Your task to perform on an android device: Open settings on Google Maps Image 0: 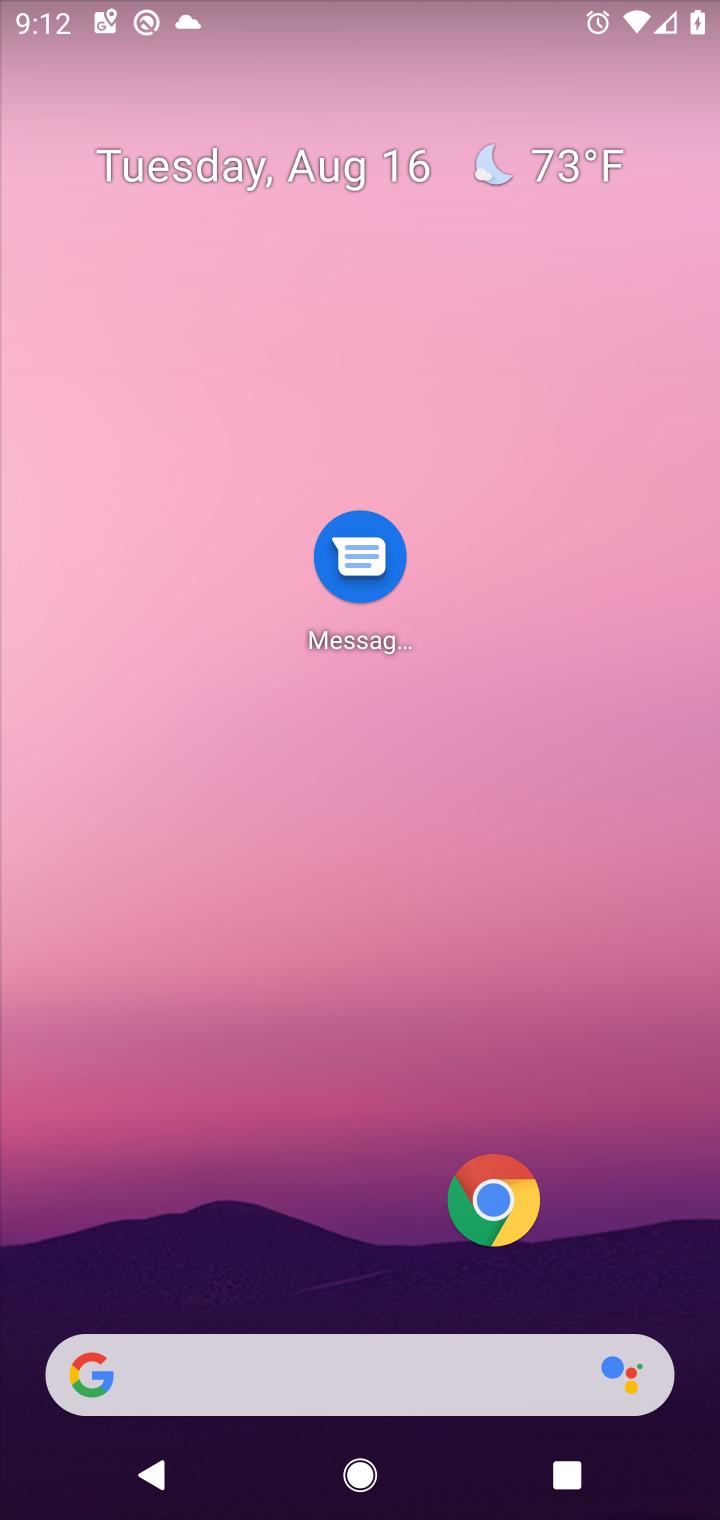
Step 0: drag from (29, 1456) to (330, 273)
Your task to perform on an android device: Open settings on Google Maps Image 1: 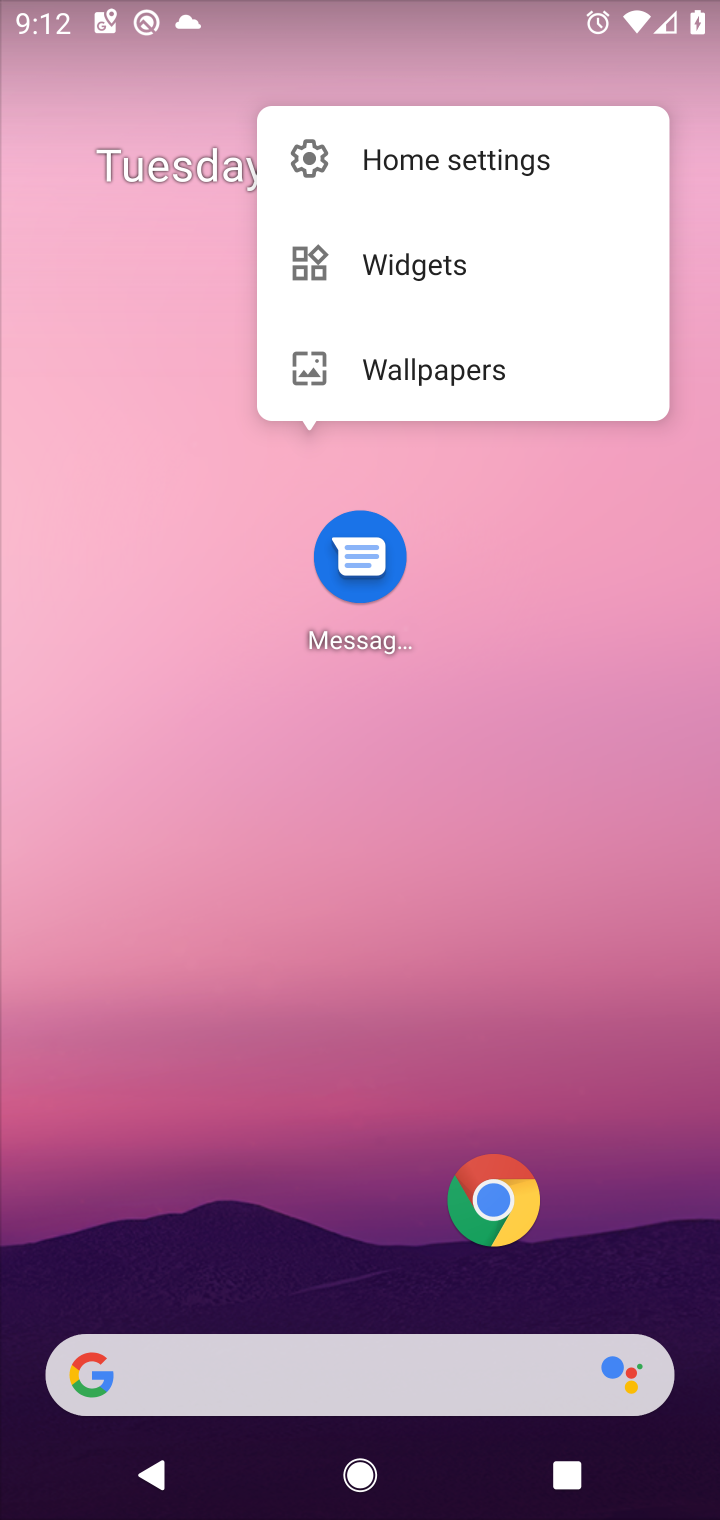
Step 1: task complete